Your task to perform on an android device: Open Amazon Image 0: 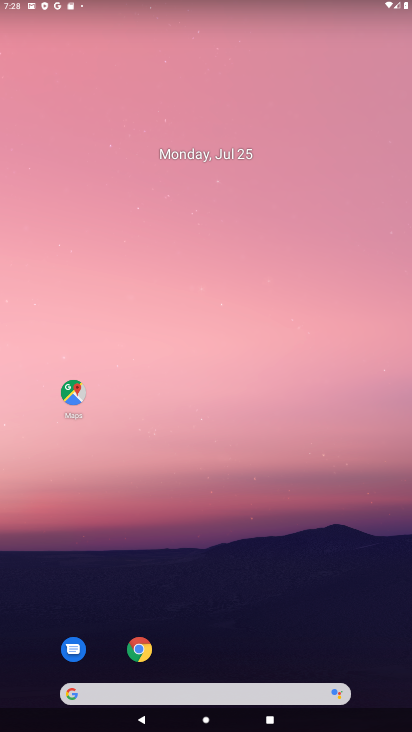
Step 0: click (132, 655)
Your task to perform on an android device: Open Amazon Image 1: 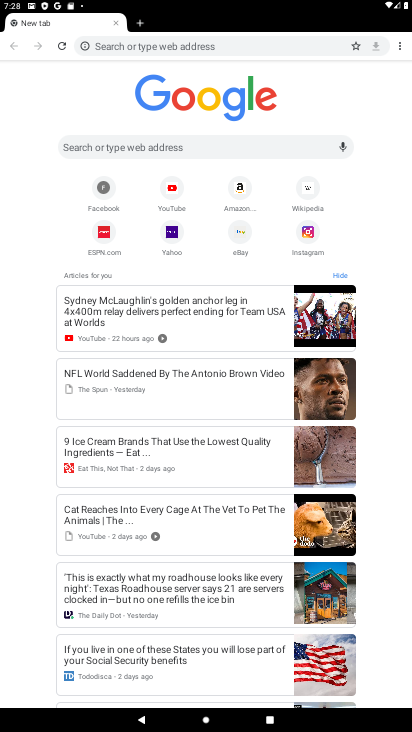
Step 1: click (231, 191)
Your task to perform on an android device: Open Amazon Image 2: 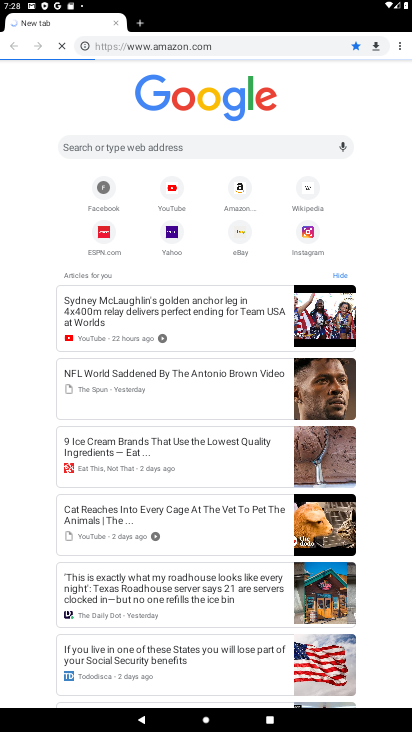
Step 2: click (231, 191)
Your task to perform on an android device: Open Amazon Image 3: 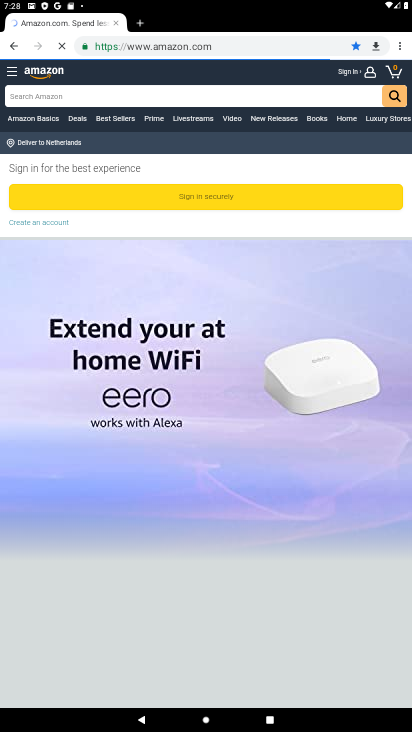
Step 3: task complete